Your task to perform on an android device: open app "Microsoft Excel" Image 0: 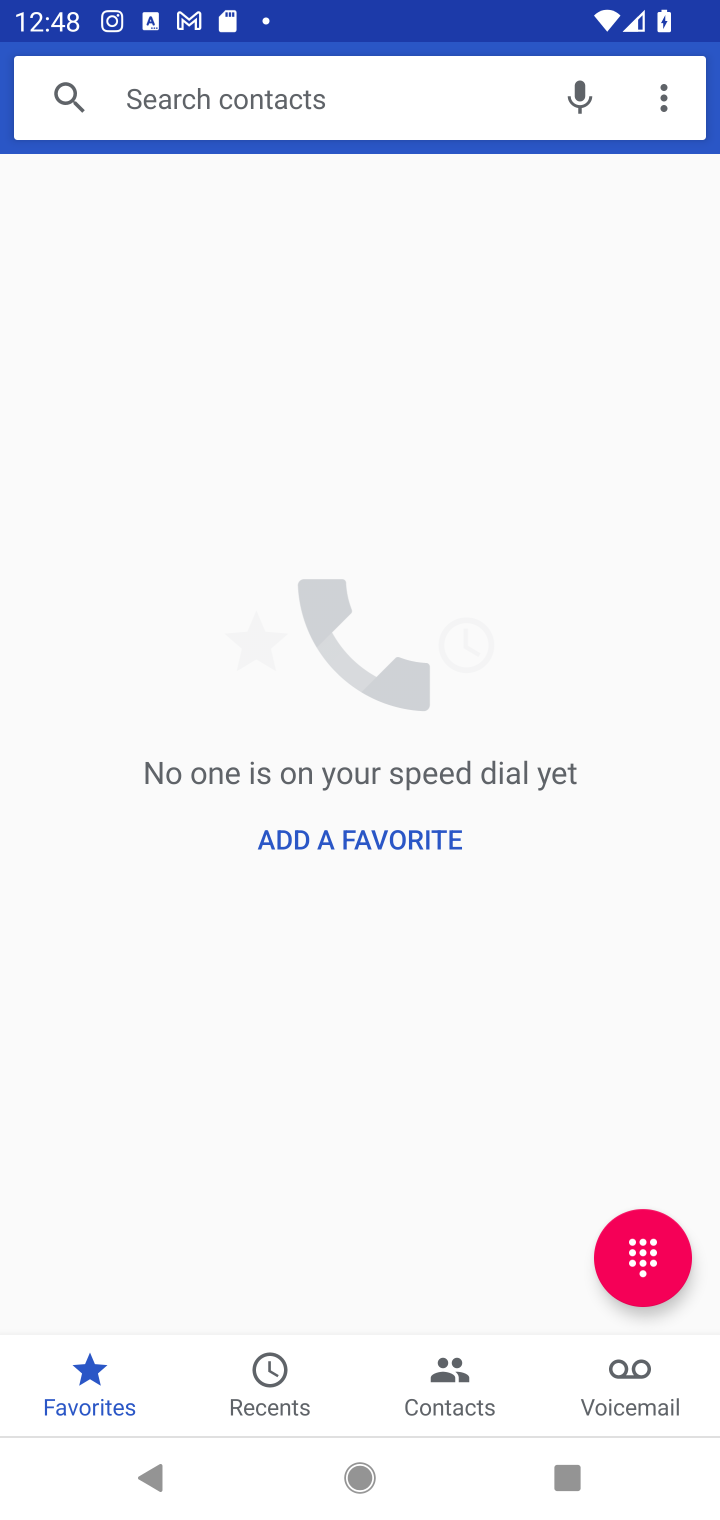
Step 0: press home button
Your task to perform on an android device: open app "Microsoft Excel" Image 1: 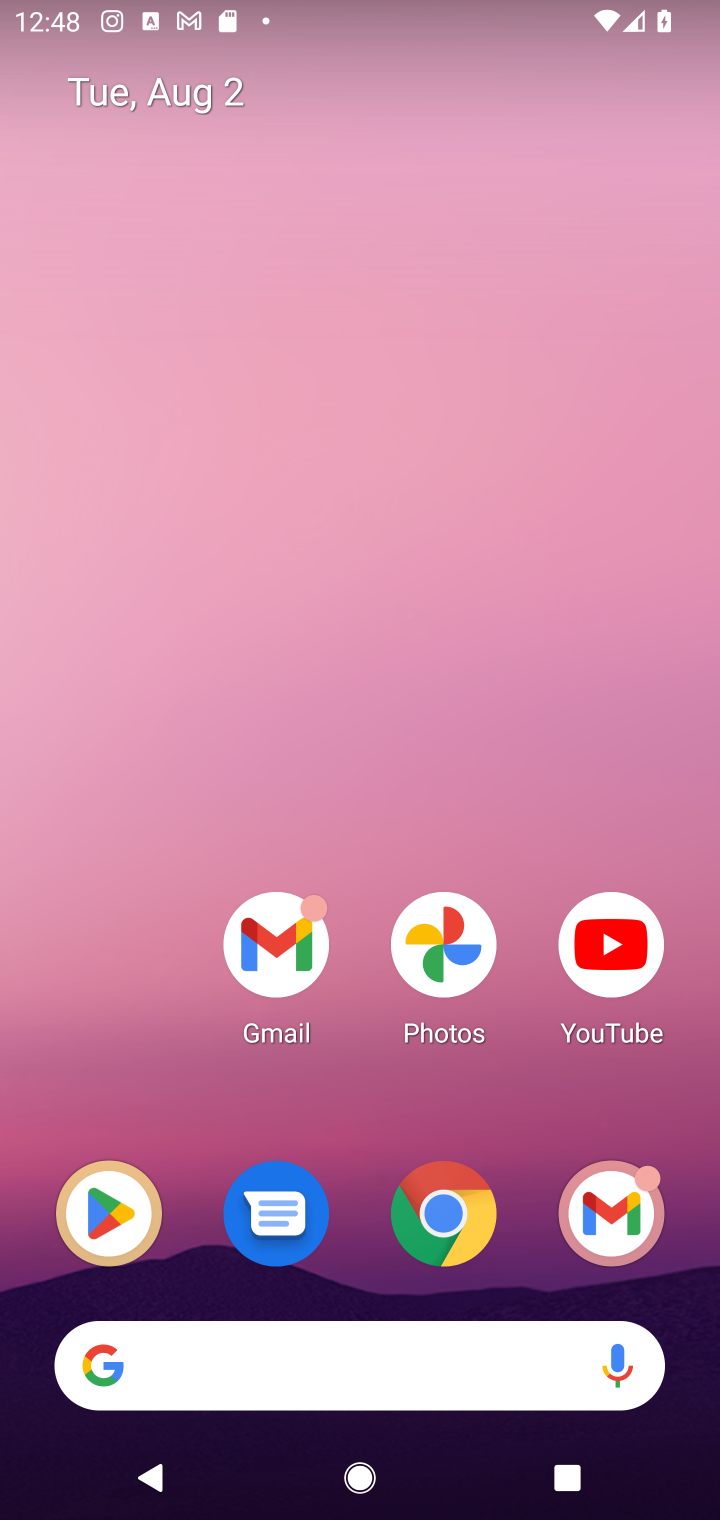
Step 1: click (100, 1210)
Your task to perform on an android device: open app "Microsoft Excel" Image 2: 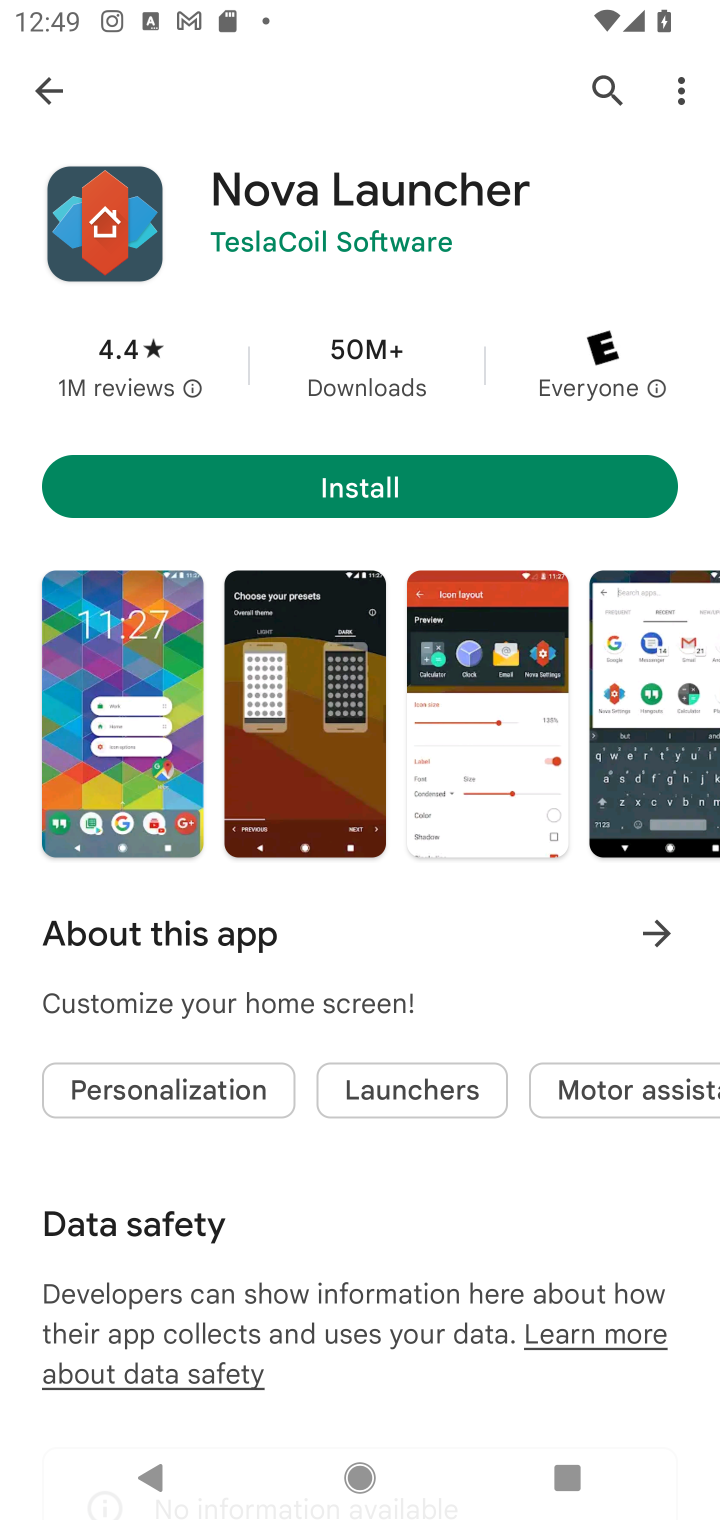
Step 2: click (35, 71)
Your task to perform on an android device: open app "Microsoft Excel" Image 3: 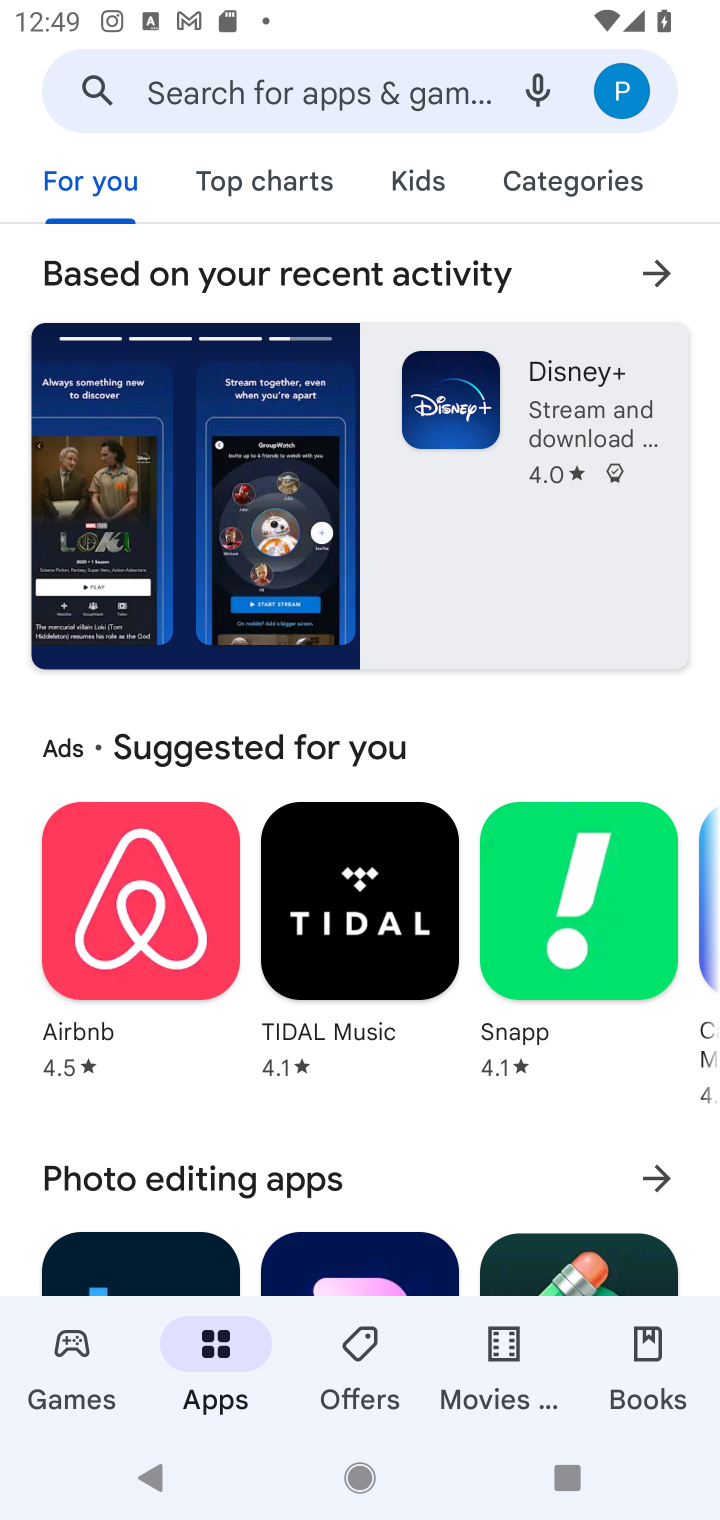
Step 3: click (380, 30)
Your task to perform on an android device: open app "Microsoft Excel" Image 4: 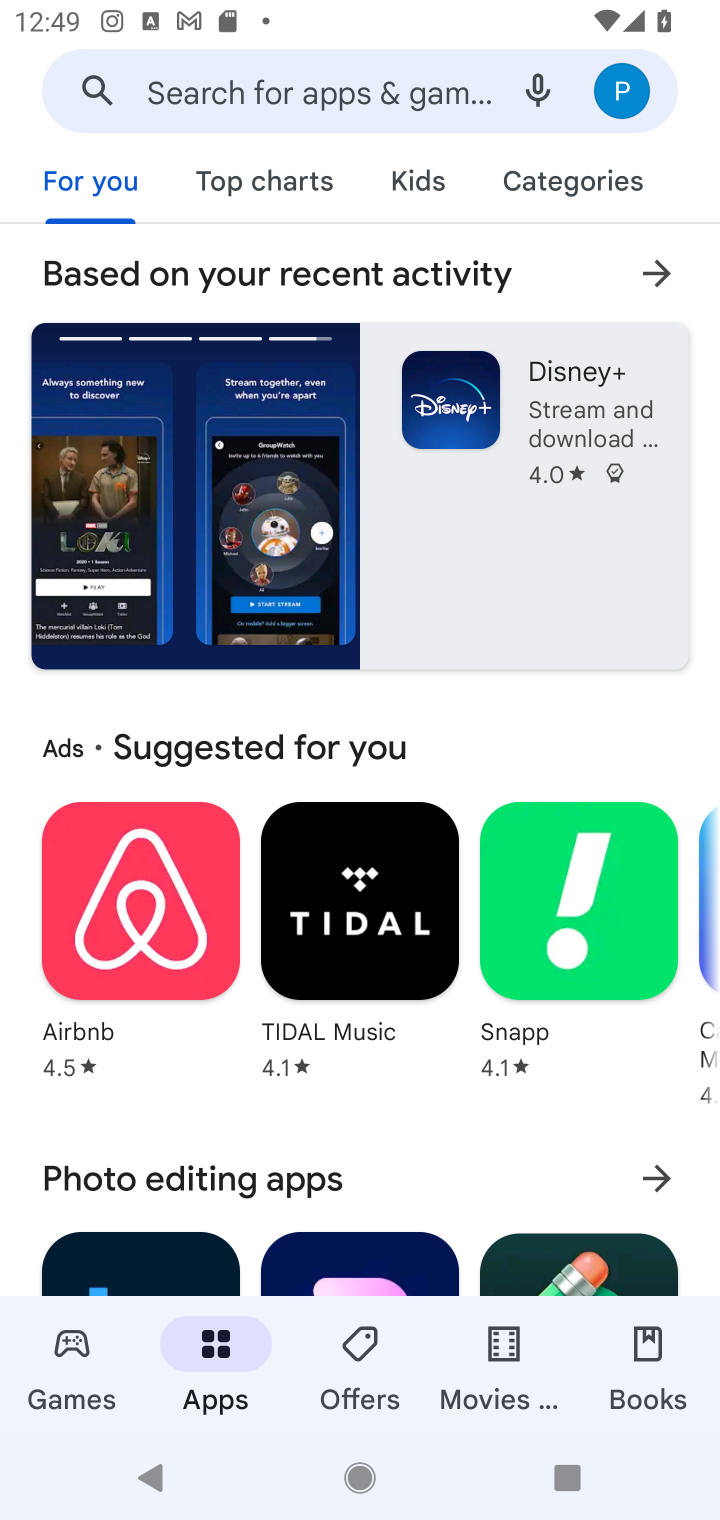
Step 4: click (305, 96)
Your task to perform on an android device: open app "Microsoft Excel" Image 5: 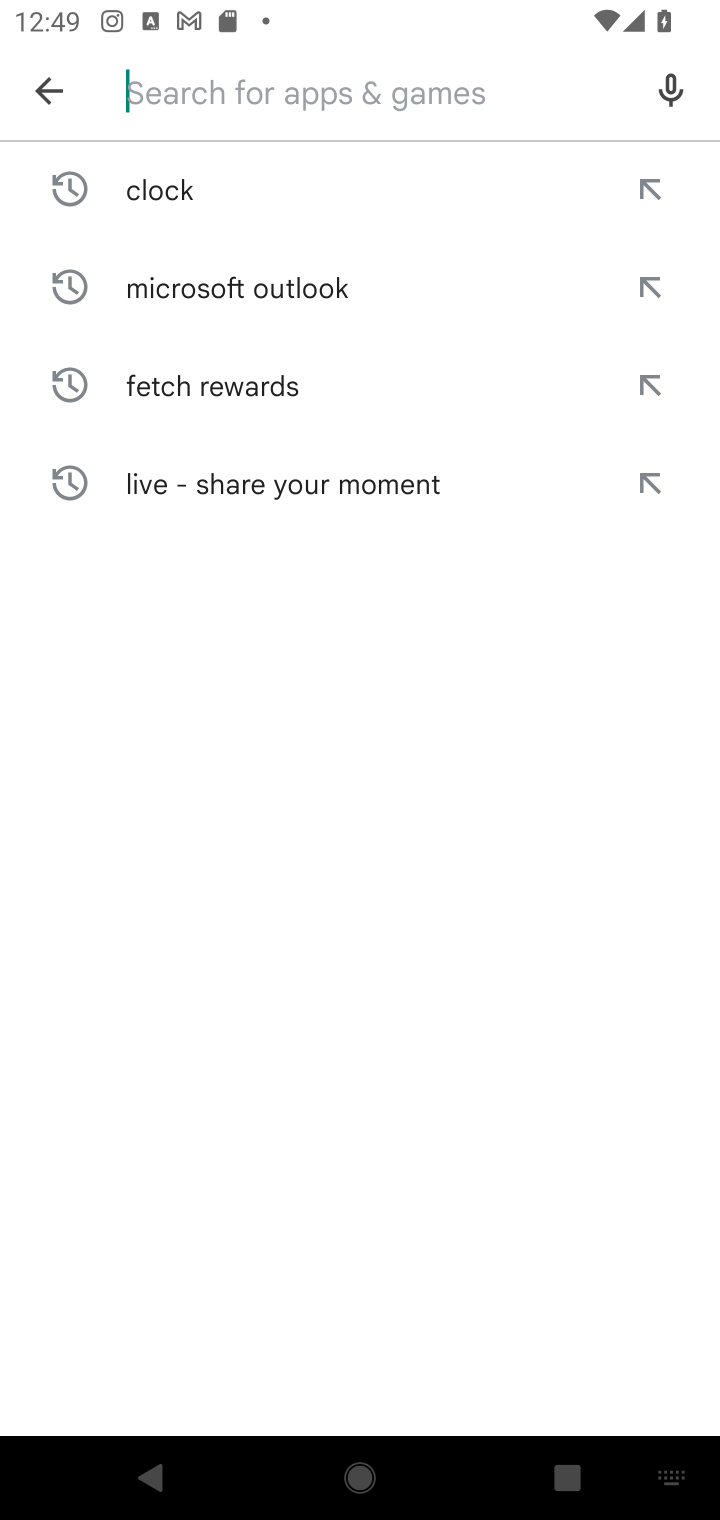
Step 5: type "Microsoft Excel"
Your task to perform on an android device: open app "Microsoft Excel" Image 6: 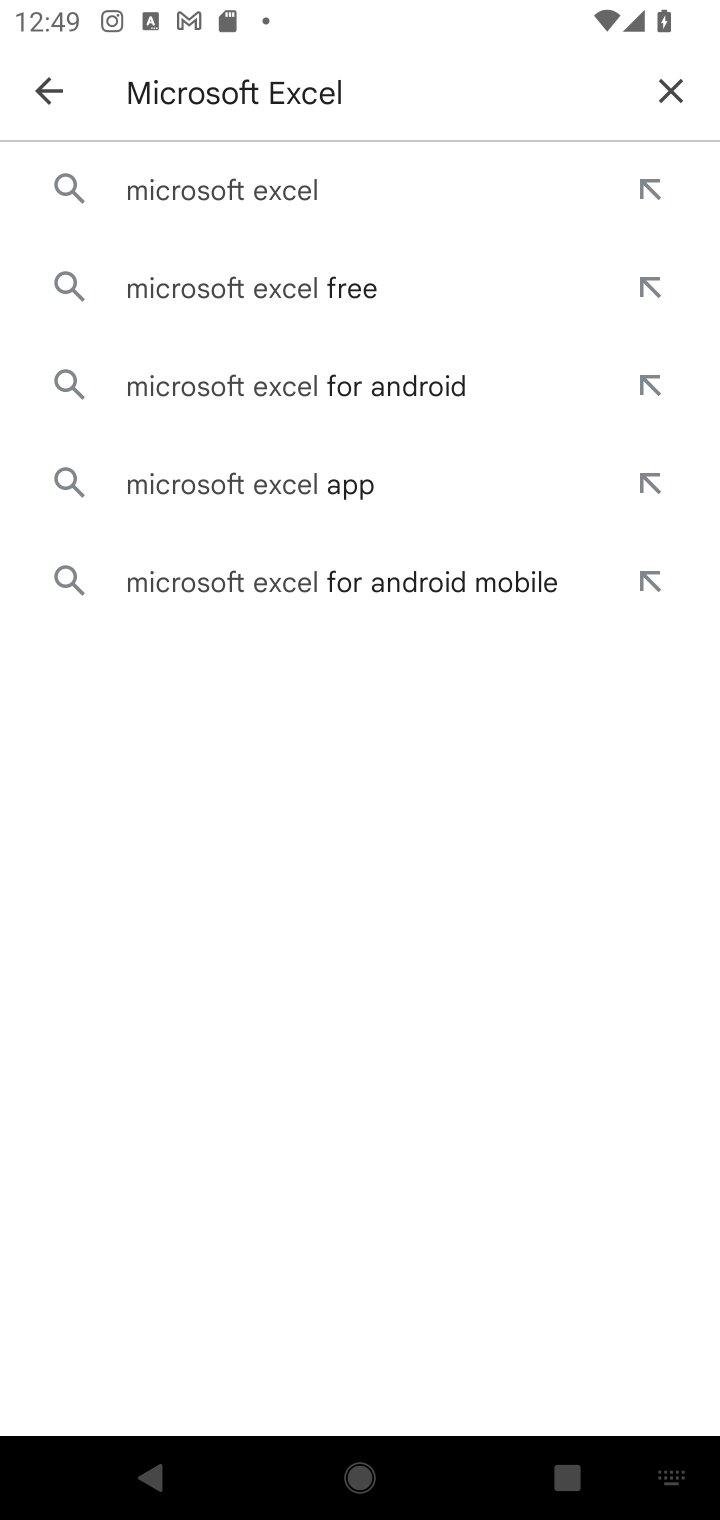
Step 6: click (267, 176)
Your task to perform on an android device: open app "Microsoft Excel" Image 7: 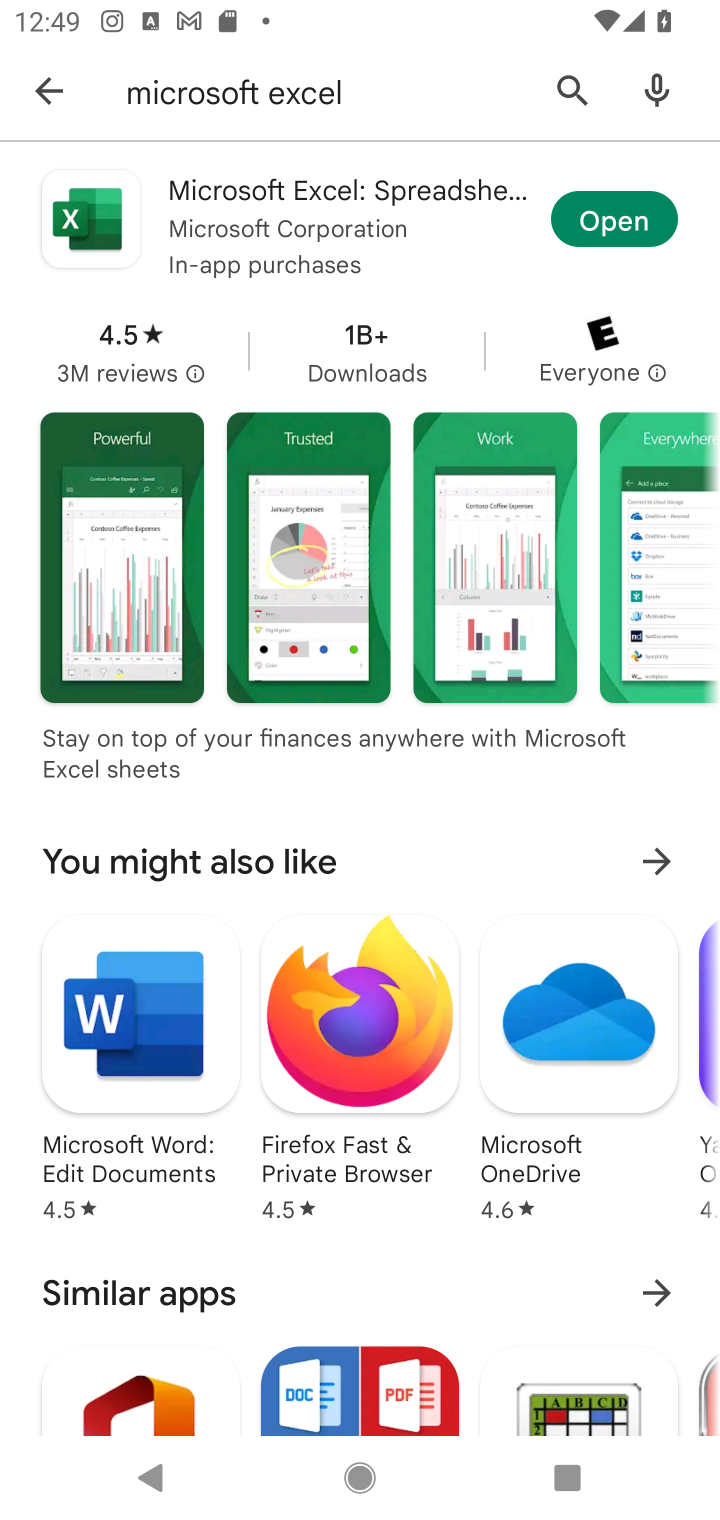
Step 7: click (575, 228)
Your task to perform on an android device: open app "Microsoft Excel" Image 8: 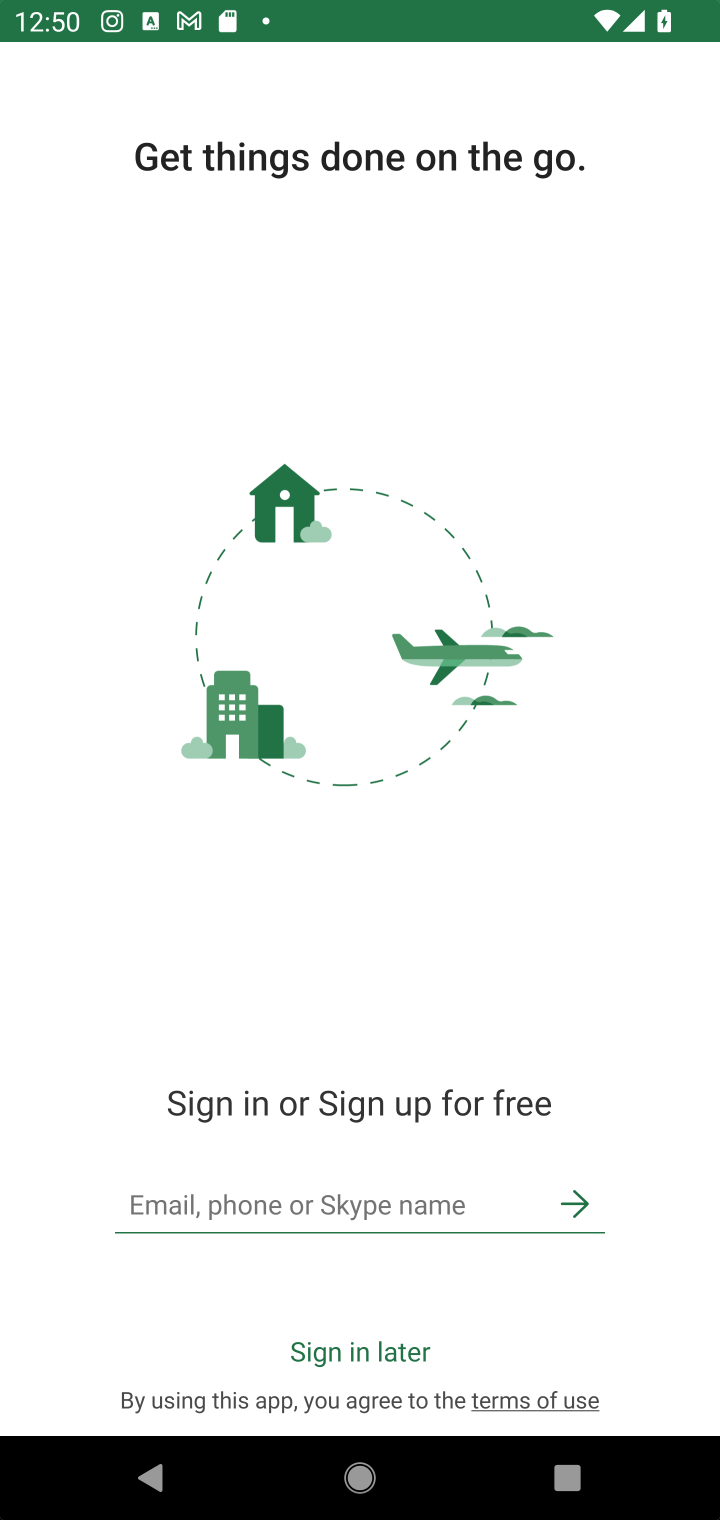
Step 8: task complete